Your task to perform on an android device: toggle javascript in the chrome app Image 0: 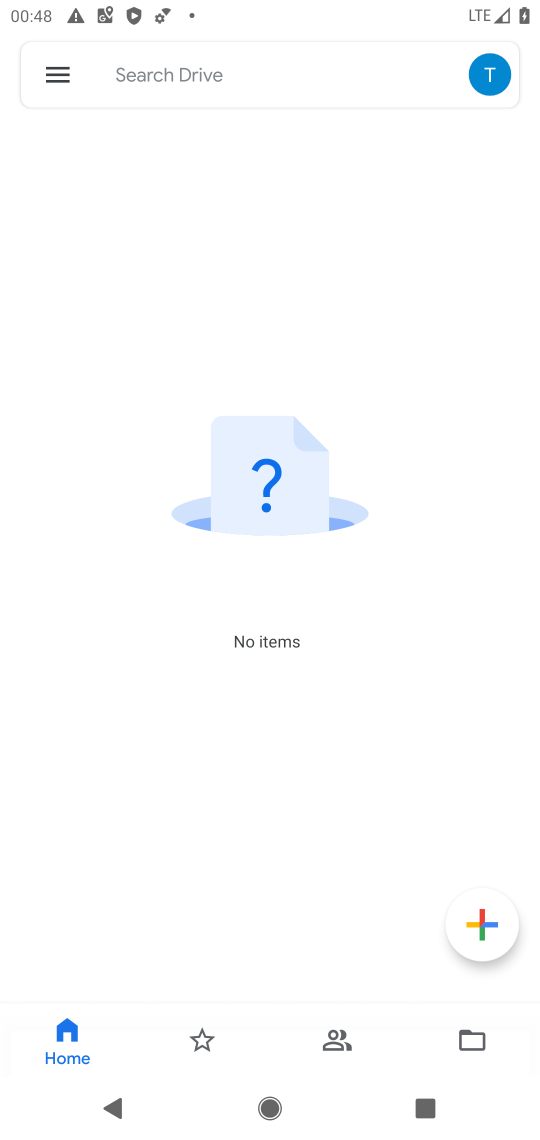
Step 0: press home button
Your task to perform on an android device: toggle javascript in the chrome app Image 1: 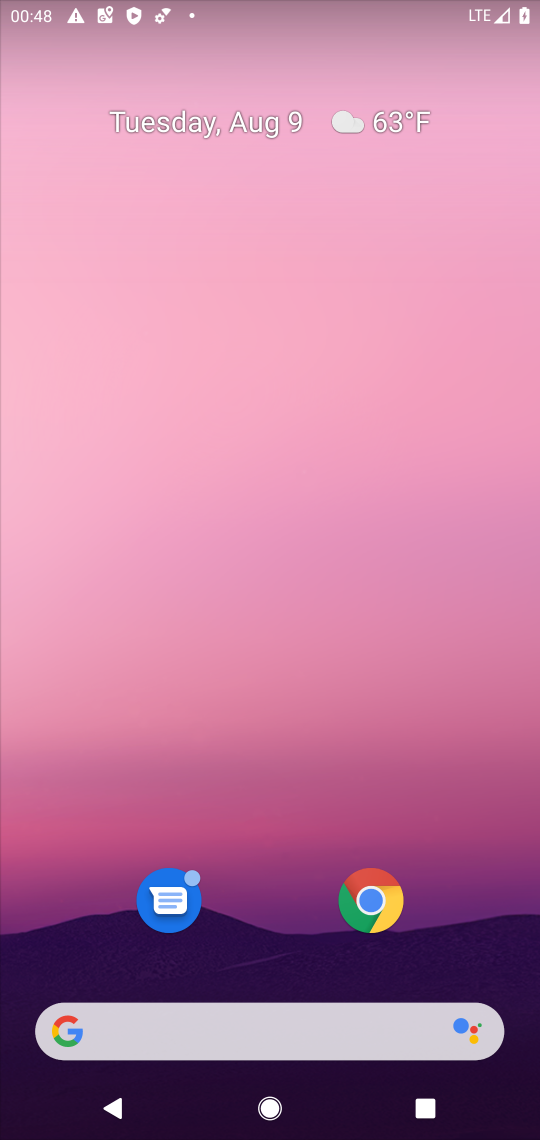
Step 1: drag from (279, 891) to (386, 87)
Your task to perform on an android device: toggle javascript in the chrome app Image 2: 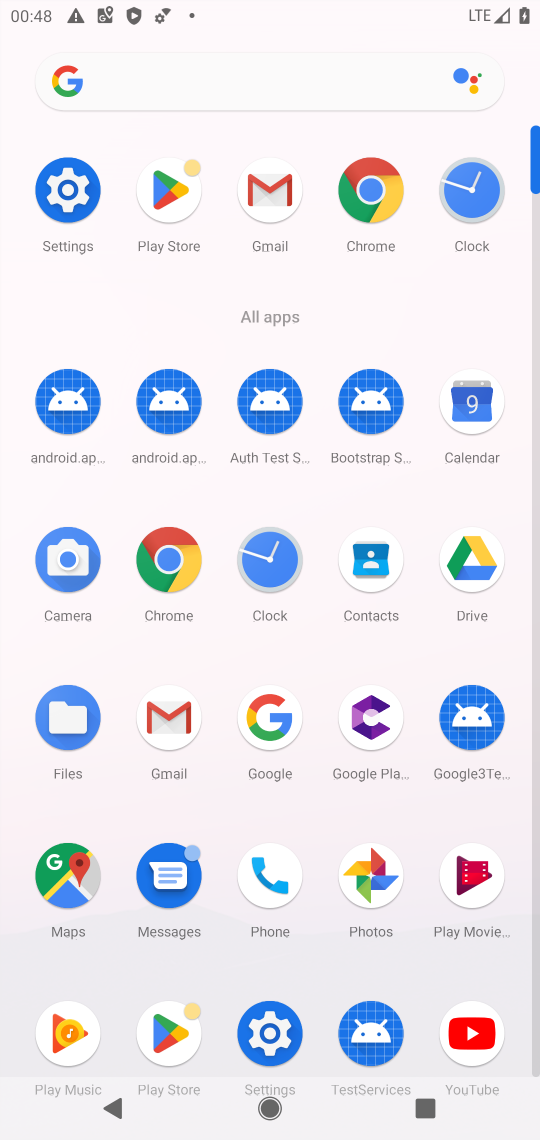
Step 2: click (174, 560)
Your task to perform on an android device: toggle javascript in the chrome app Image 3: 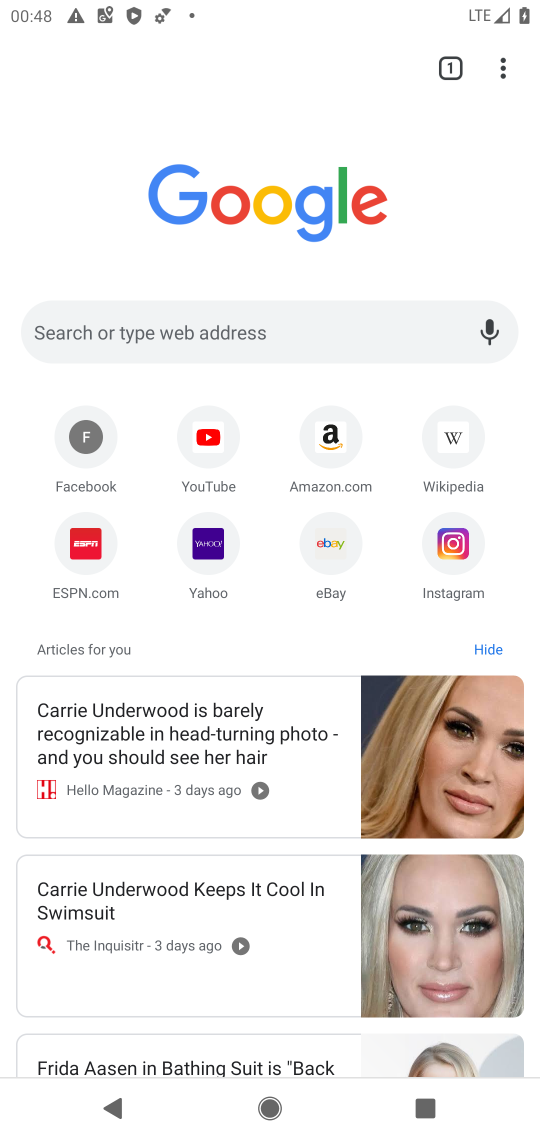
Step 3: click (504, 78)
Your task to perform on an android device: toggle javascript in the chrome app Image 4: 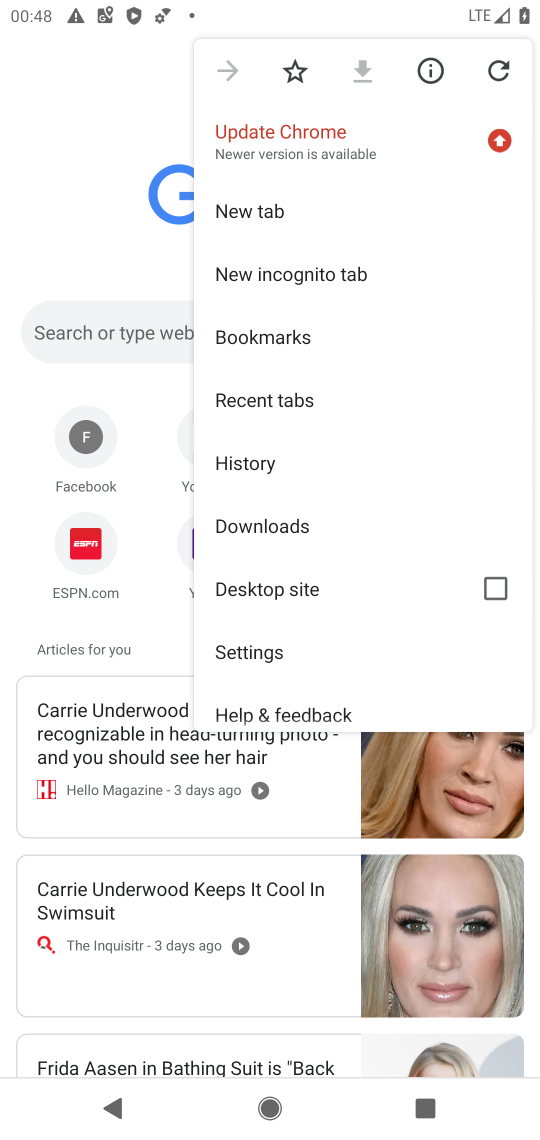
Step 4: click (264, 658)
Your task to perform on an android device: toggle javascript in the chrome app Image 5: 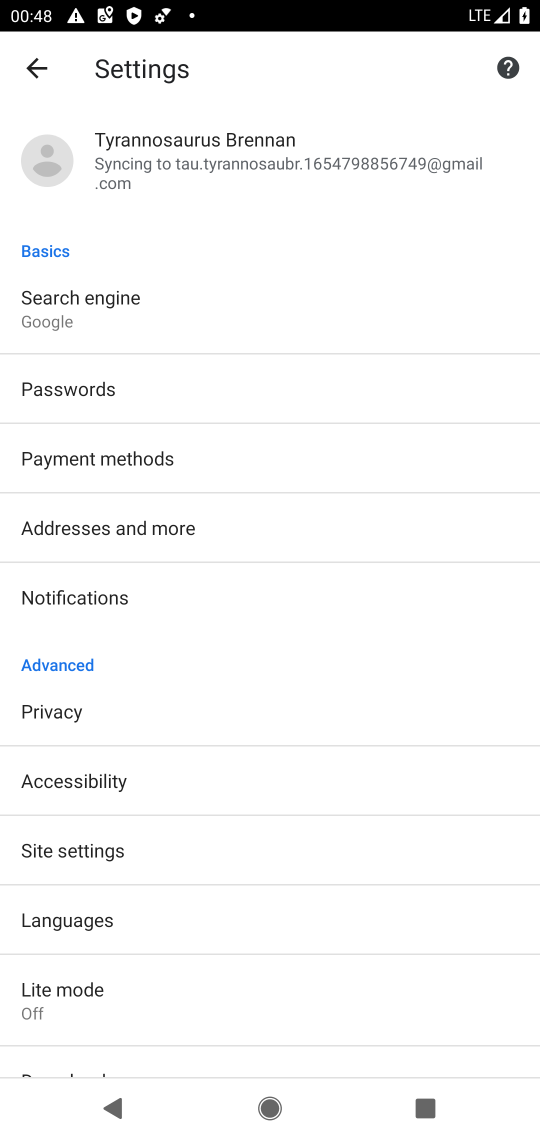
Step 5: drag from (387, 893) to (393, 697)
Your task to perform on an android device: toggle javascript in the chrome app Image 6: 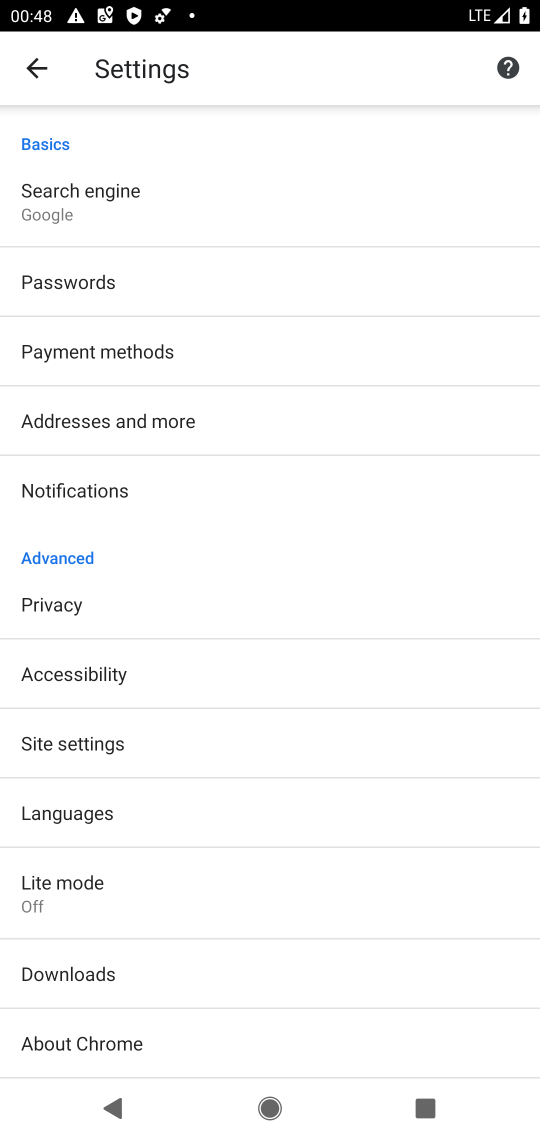
Step 6: drag from (367, 873) to (382, 607)
Your task to perform on an android device: toggle javascript in the chrome app Image 7: 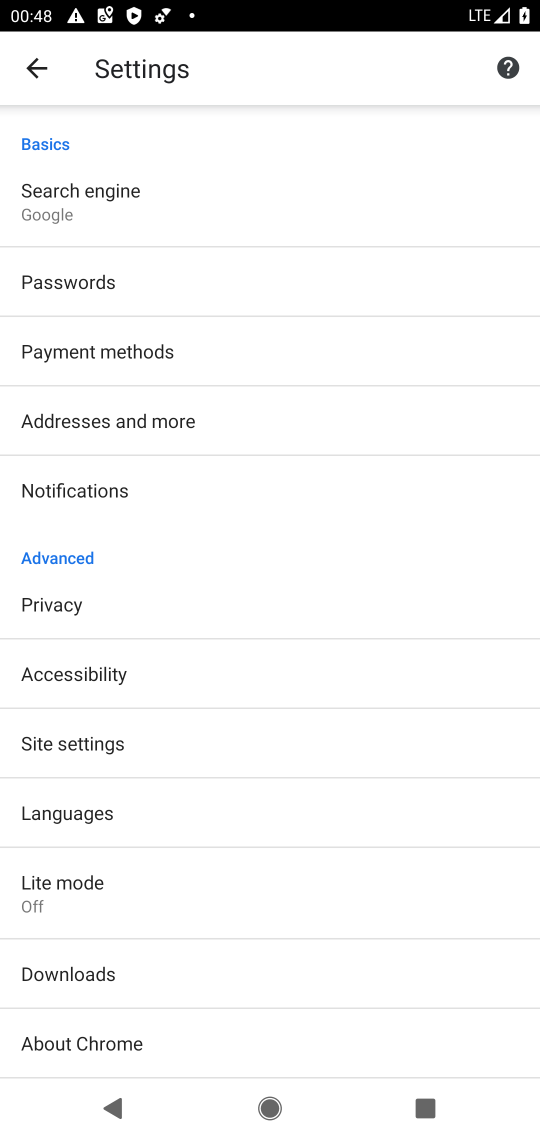
Step 7: click (294, 738)
Your task to perform on an android device: toggle javascript in the chrome app Image 8: 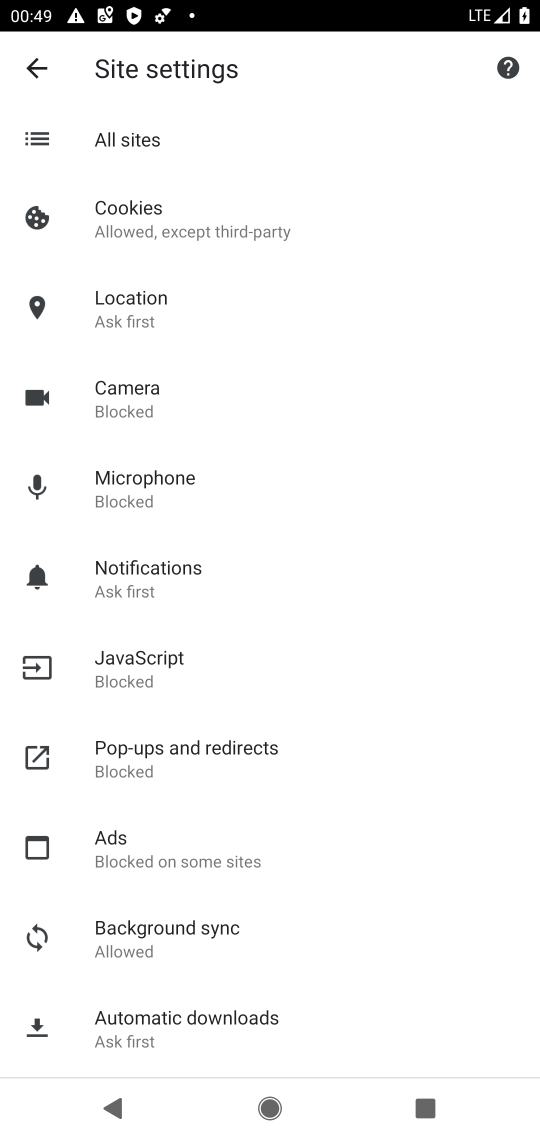
Step 8: drag from (362, 874) to (381, 727)
Your task to perform on an android device: toggle javascript in the chrome app Image 9: 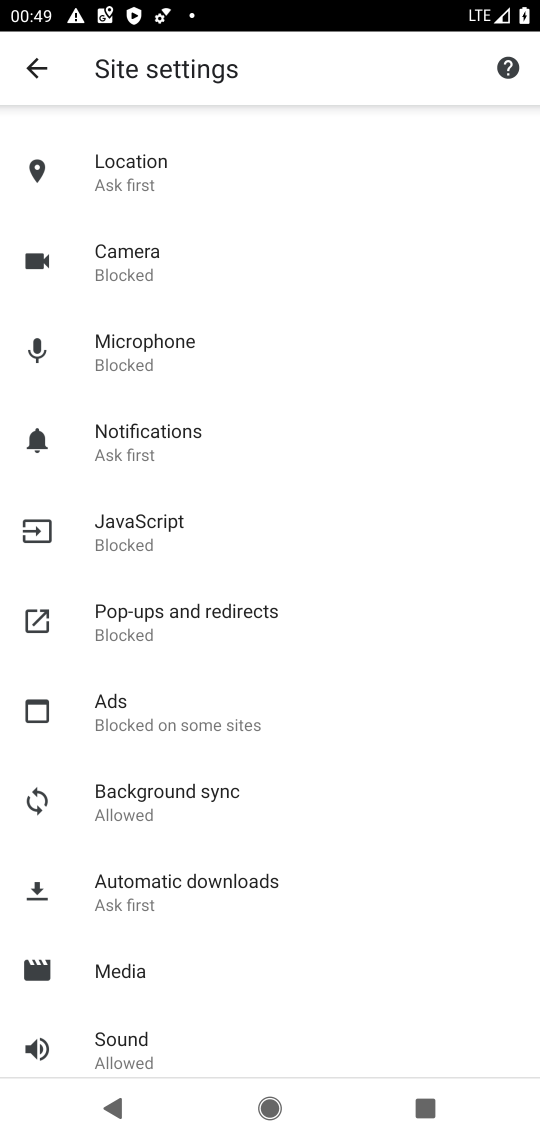
Step 9: drag from (380, 836) to (397, 600)
Your task to perform on an android device: toggle javascript in the chrome app Image 10: 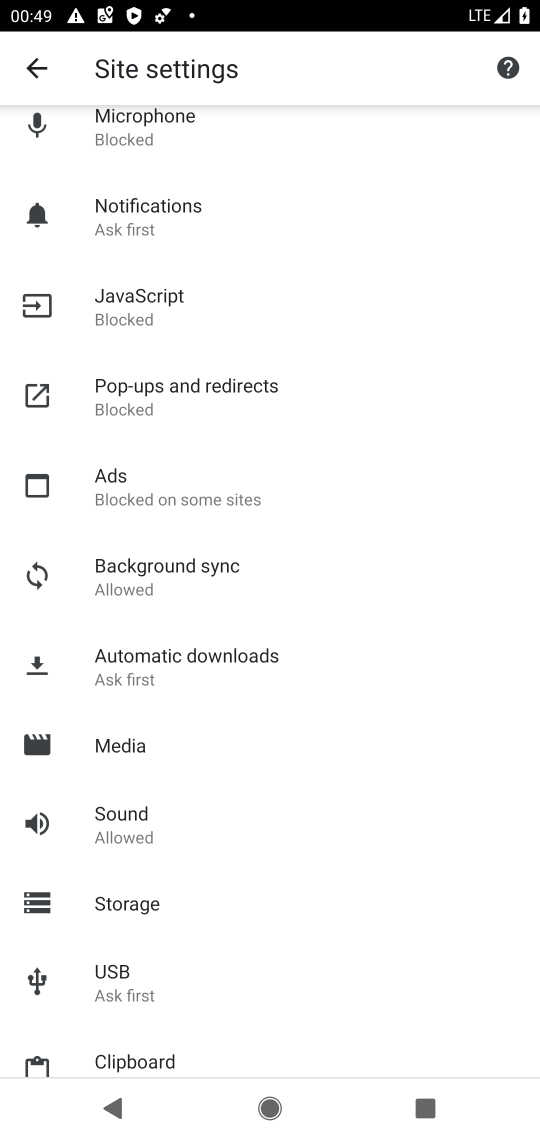
Step 10: drag from (380, 731) to (368, 490)
Your task to perform on an android device: toggle javascript in the chrome app Image 11: 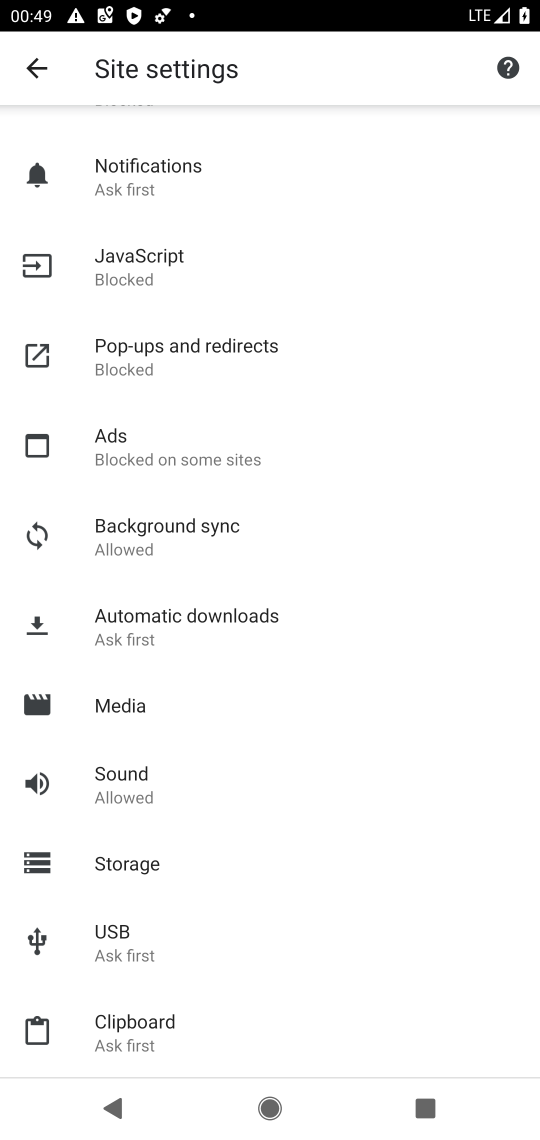
Step 11: drag from (354, 821) to (371, 536)
Your task to perform on an android device: toggle javascript in the chrome app Image 12: 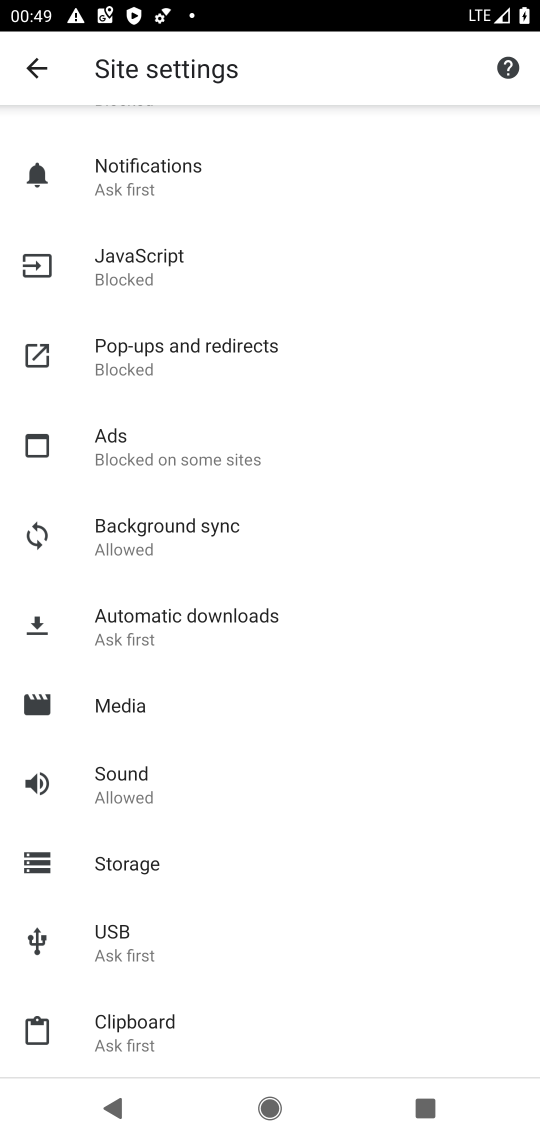
Step 12: drag from (381, 461) to (394, 825)
Your task to perform on an android device: toggle javascript in the chrome app Image 13: 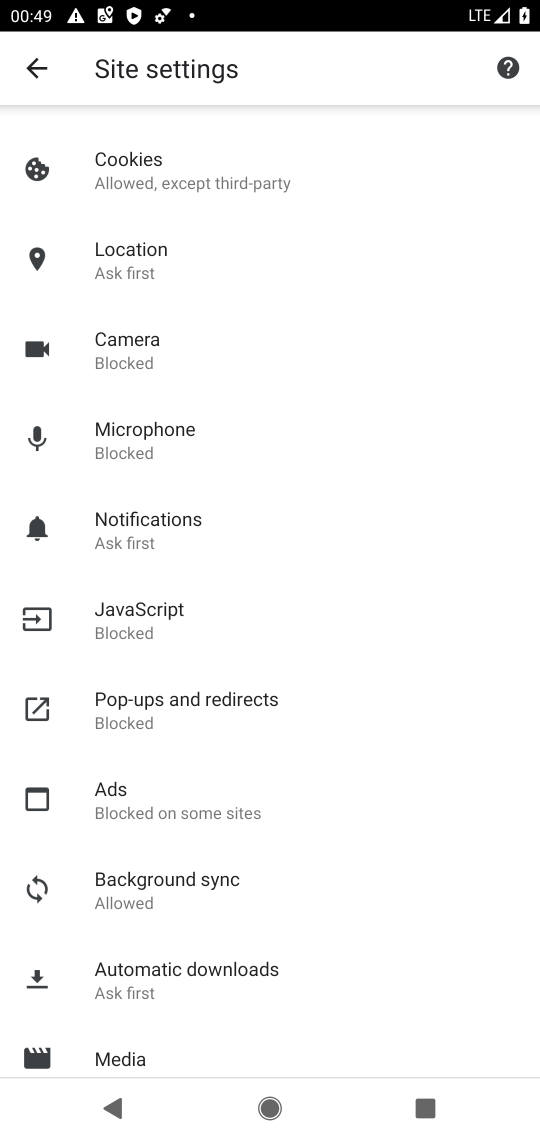
Step 13: click (144, 624)
Your task to perform on an android device: toggle javascript in the chrome app Image 14: 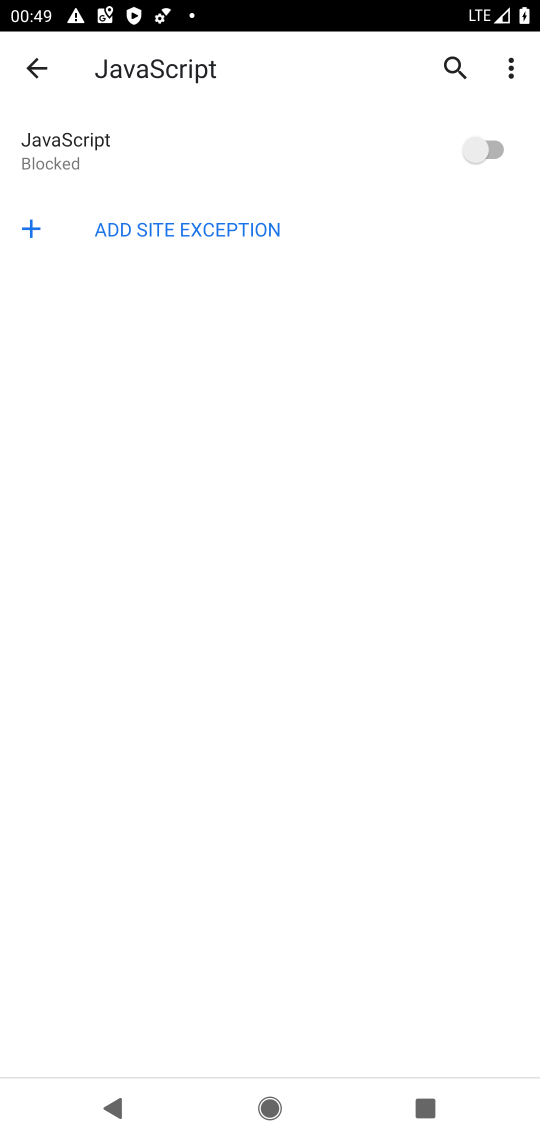
Step 14: click (468, 147)
Your task to perform on an android device: toggle javascript in the chrome app Image 15: 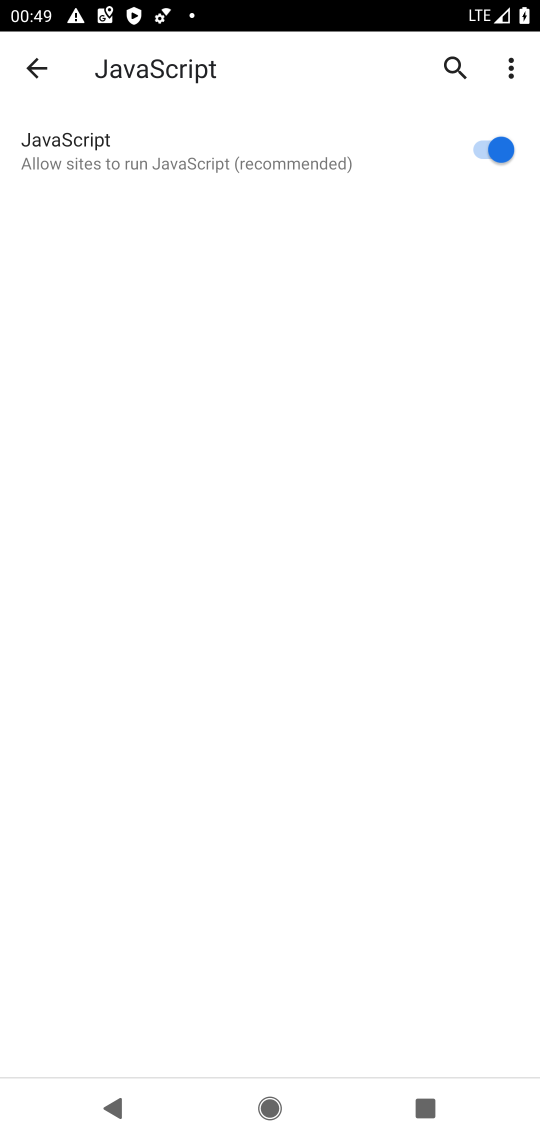
Step 15: task complete